Your task to perform on an android device: empty trash in the gmail app Image 0: 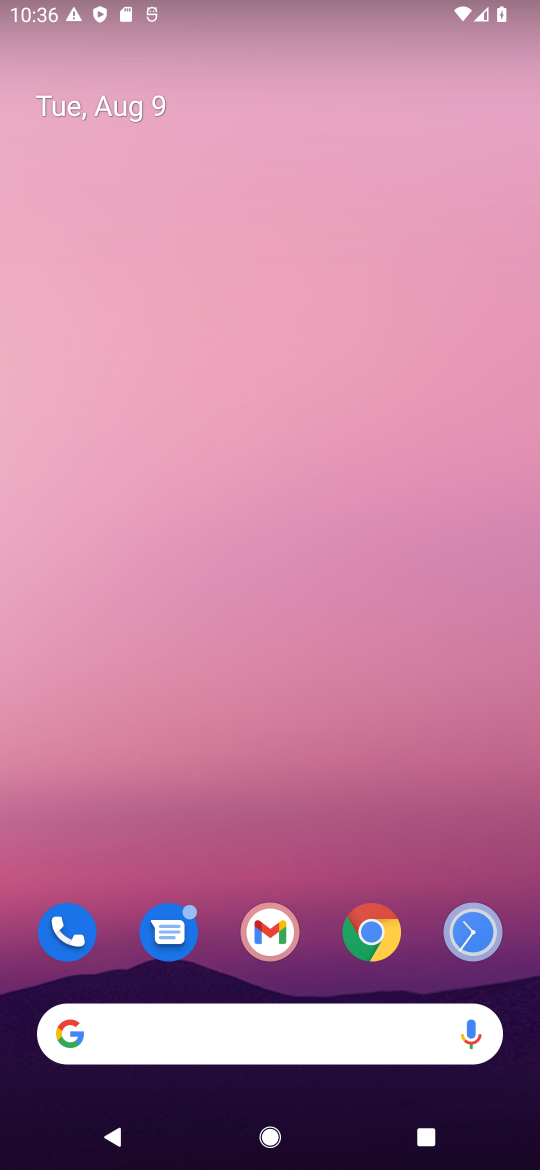
Step 0: click (272, 931)
Your task to perform on an android device: empty trash in the gmail app Image 1: 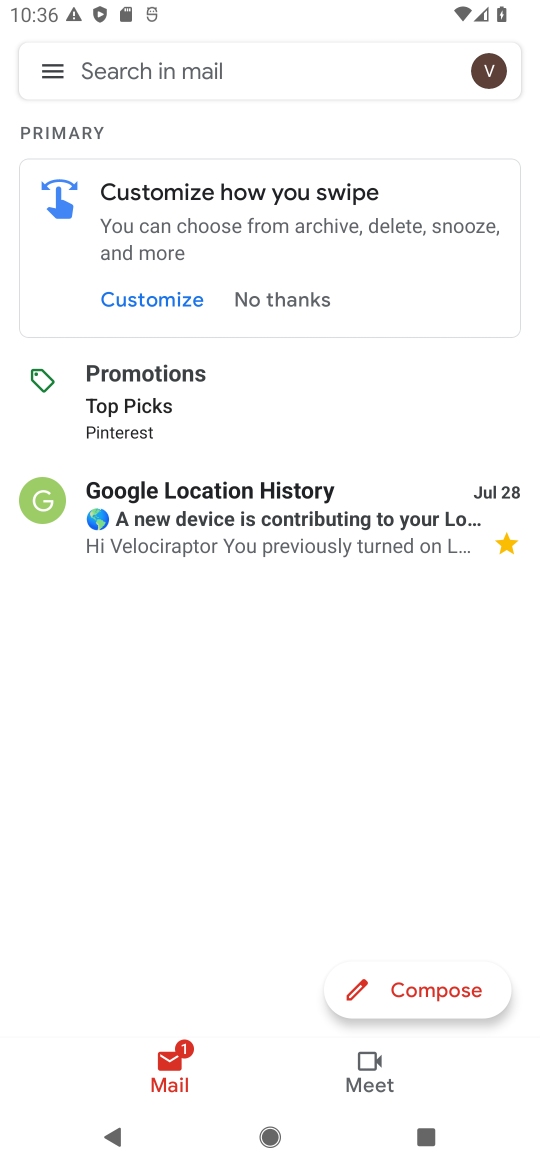
Step 1: click (63, 67)
Your task to perform on an android device: empty trash in the gmail app Image 2: 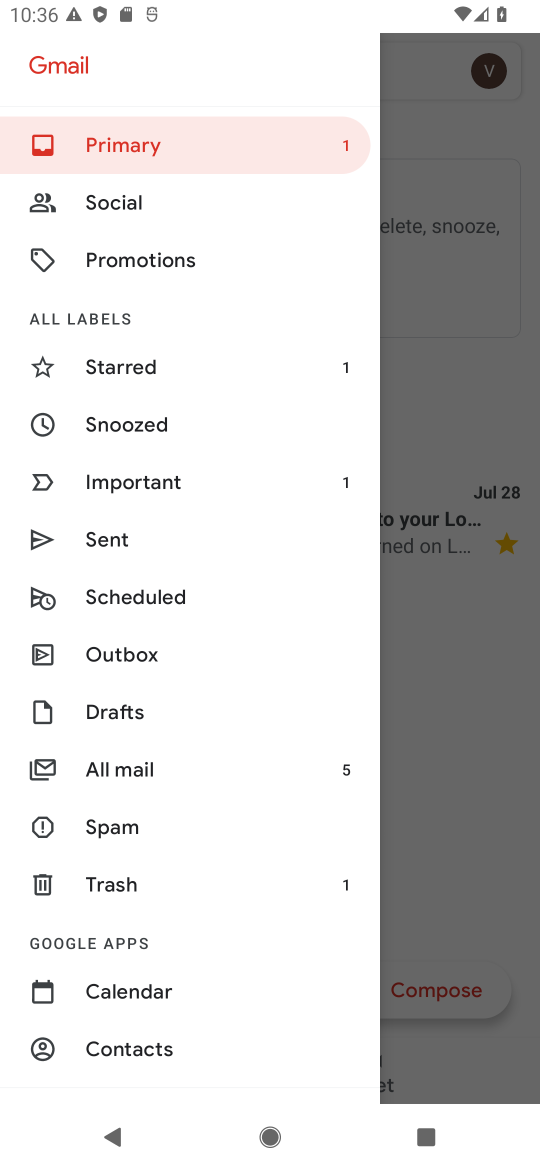
Step 2: click (121, 886)
Your task to perform on an android device: empty trash in the gmail app Image 3: 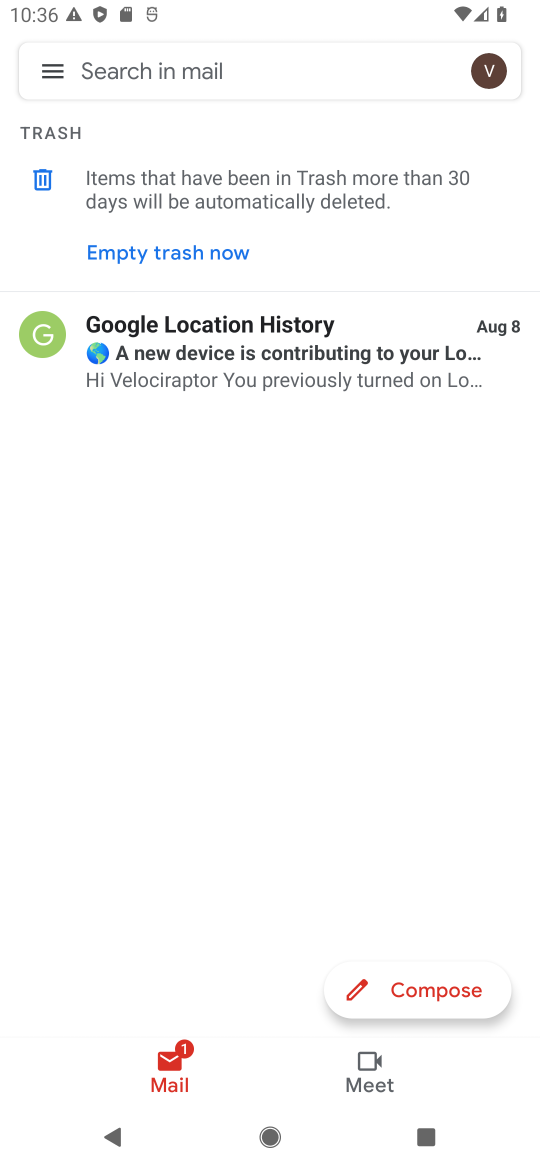
Step 3: click (166, 249)
Your task to perform on an android device: empty trash in the gmail app Image 4: 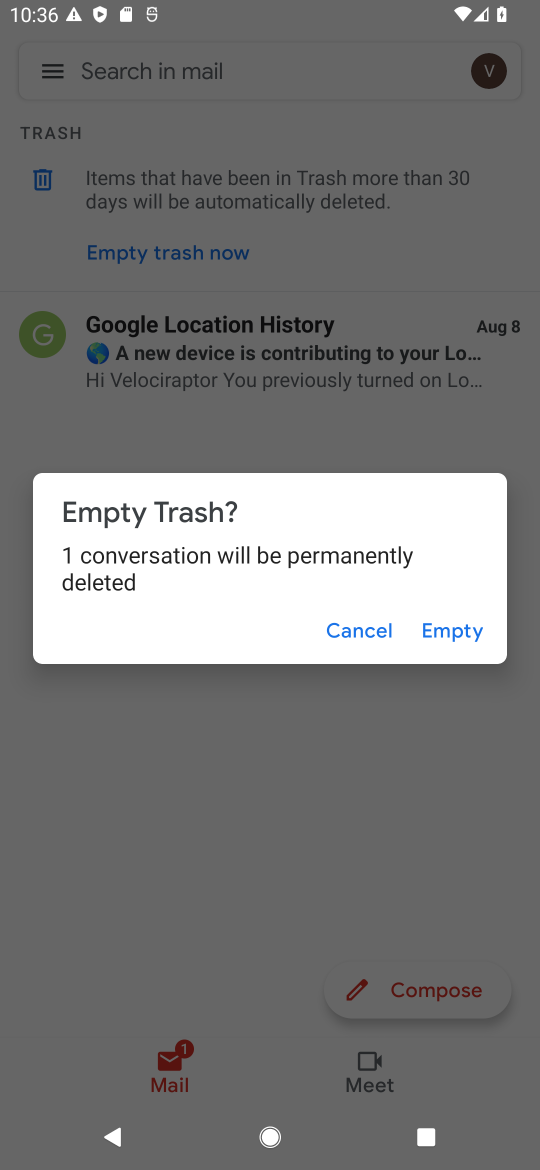
Step 4: click (449, 639)
Your task to perform on an android device: empty trash in the gmail app Image 5: 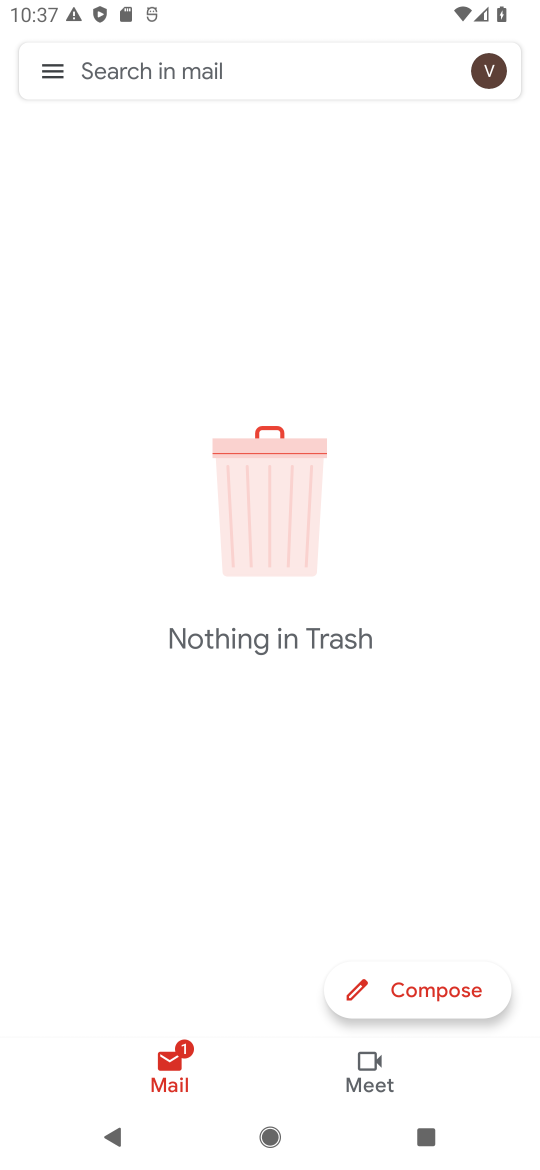
Step 5: task complete